Your task to perform on an android device: Go to network settings Image 0: 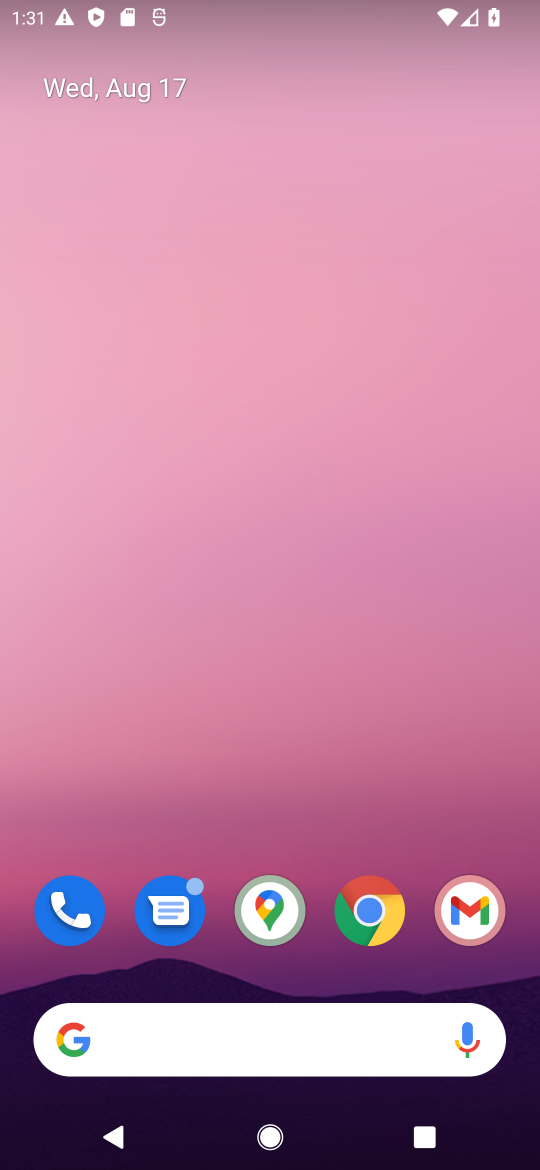
Step 0: drag from (277, 964) to (381, 5)
Your task to perform on an android device: Go to network settings Image 1: 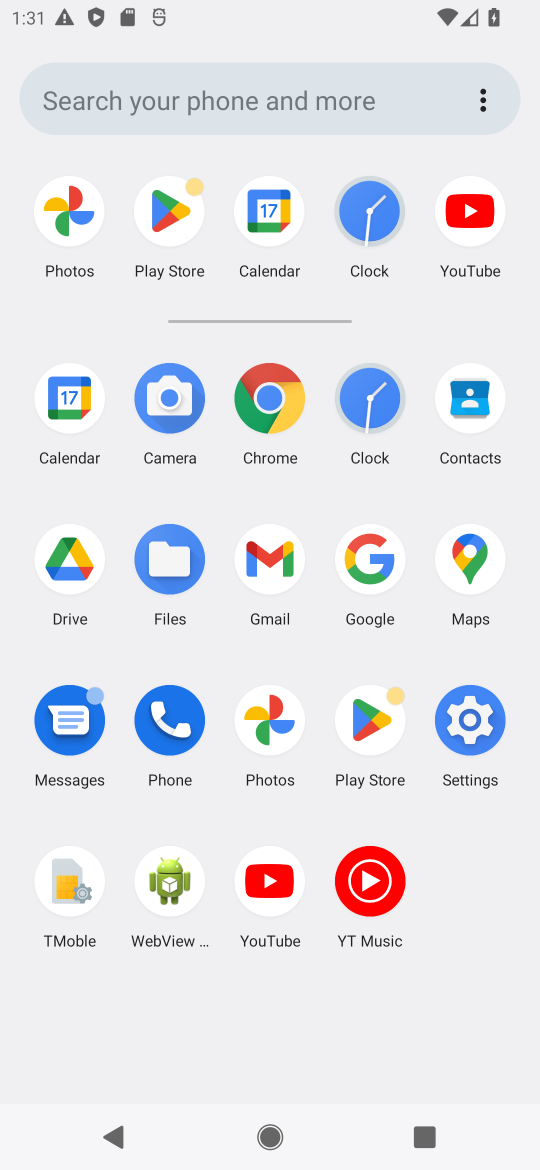
Step 1: click (452, 738)
Your task to perform on an android device: Go to network settings Image 2: 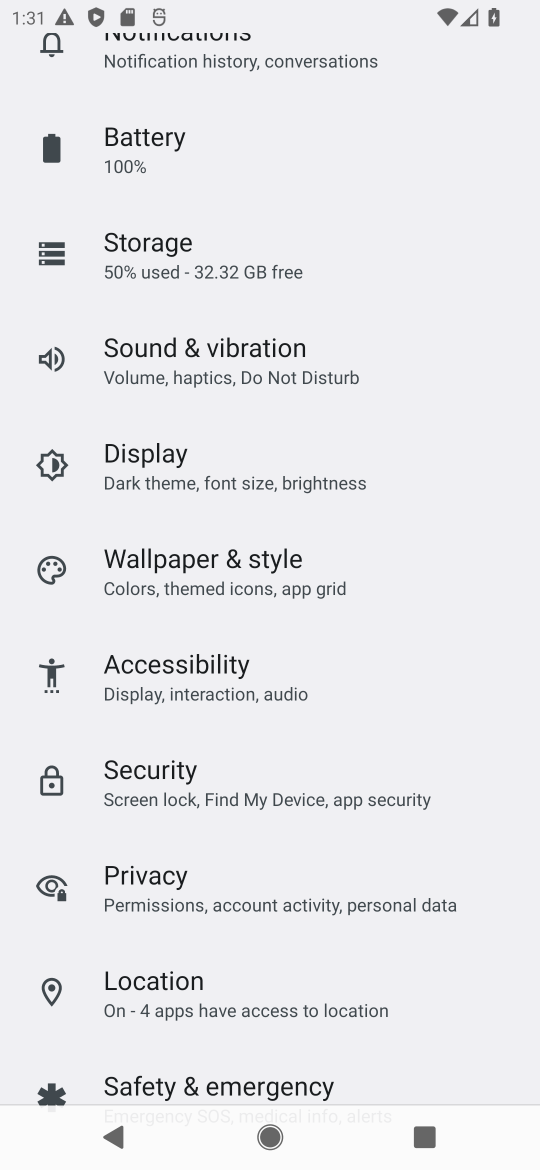
Step 2: drag from (376, 287) to (351, 1147)
Your task to perform on an android device: Go to network settings Image 3: 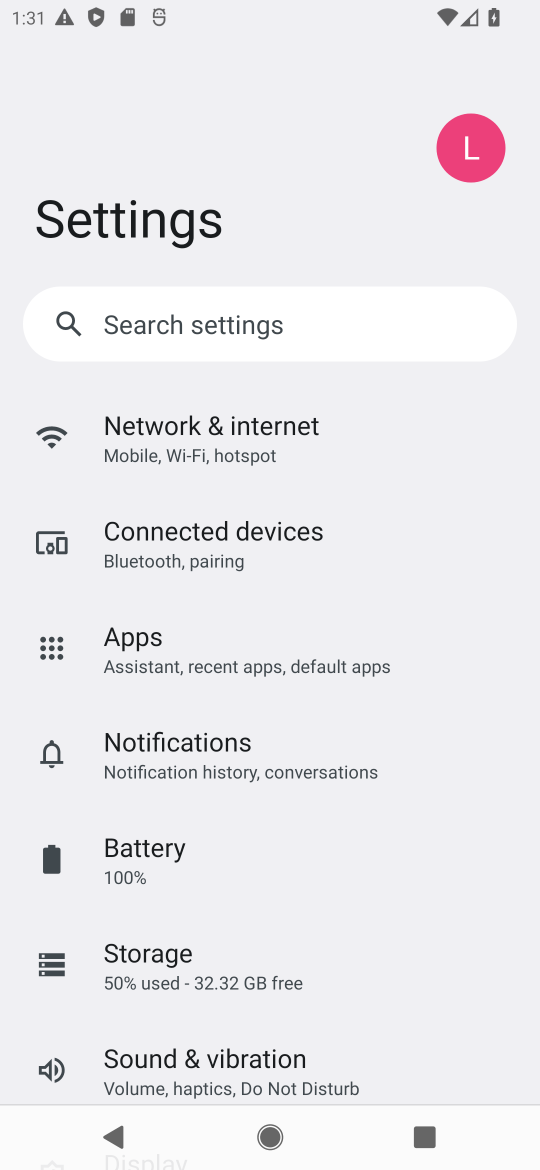
Step 3: click (201, 426)
Your task to perform on an android device: Go to network settings Image 4: 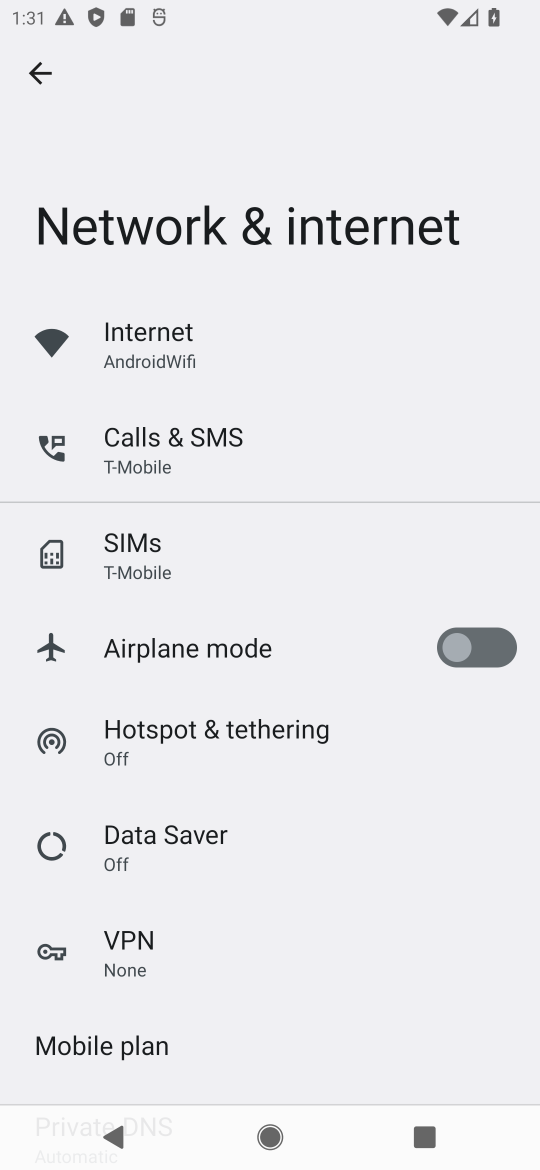
Step 4: task complete